Your task to perform on an android device: find which apps use the phone's location Image 0: 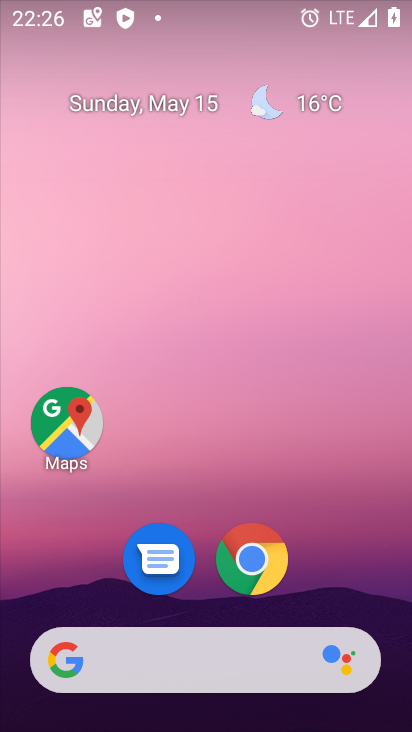
Step 0: drag from (319, 503) to (257, 13)
Your task to perform on an android device: find which apps use the phone's location Image 1: 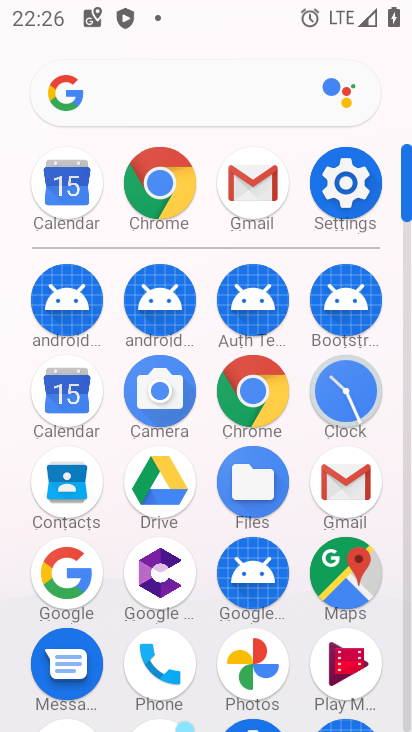
Step 1: click (347, 184)
Your task to perform on an android device: find which apps use the phone's location Image 2: 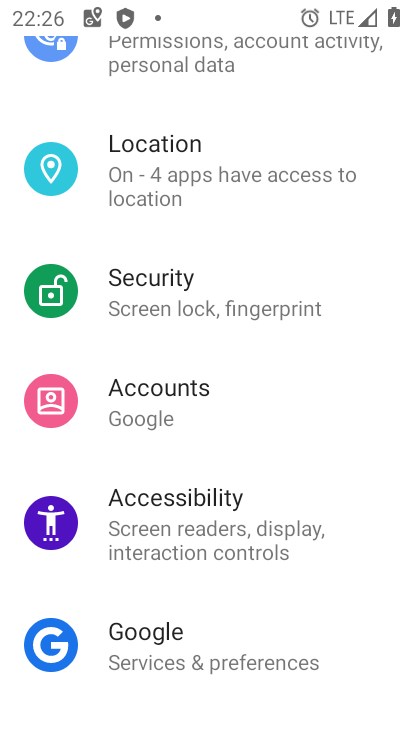
Step 2: click (147, 145)
Your task to perform on an android device: find which apps use the phone's location Image 3: 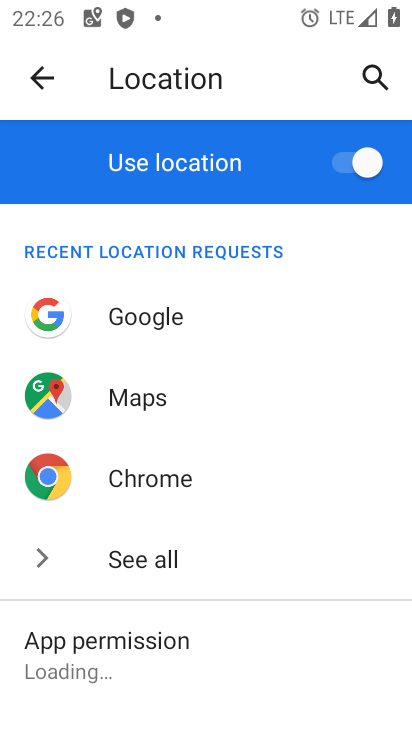
Step 3: drag from (198, 500) to (136, 178)
Your task to perform on an android device: find which apps use the phone's location Image 4: 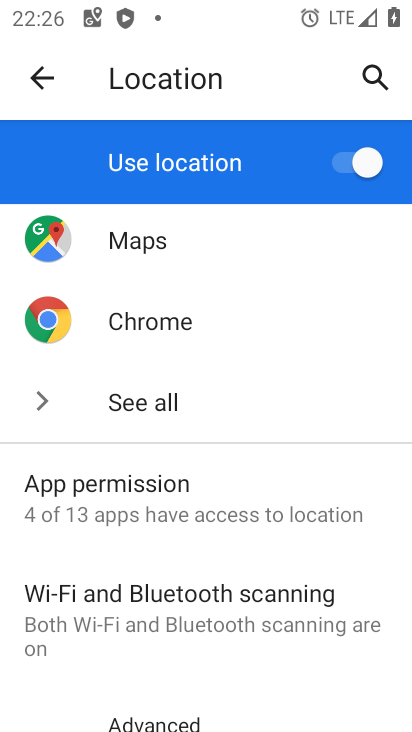
Step 4: drag from (246, 422) to (183, 173)
Your task to perform on an android device: find which apps use the phone's location Image 5: 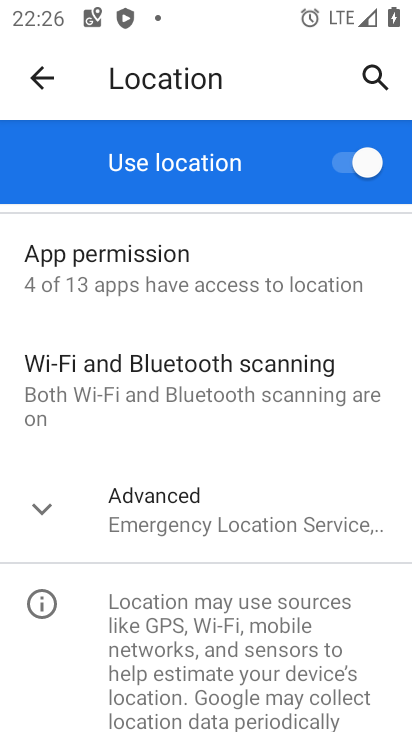
Step 5: drag from (229, 240) to (299, 729)
Your task to perform on an android device: find which apps use the phone's location Image 6: 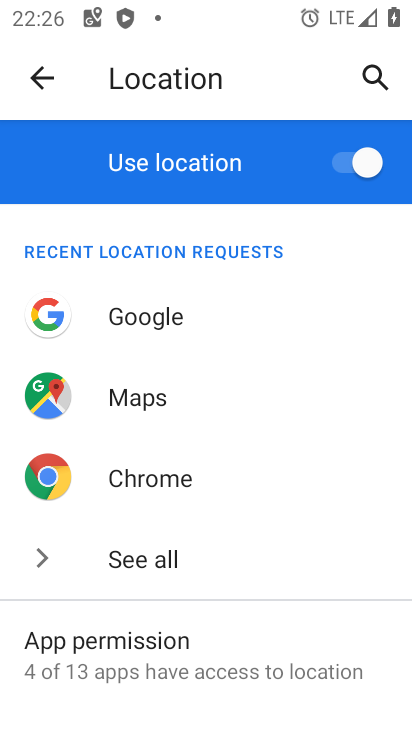
Step 6: drag from (235, 367) to (267, 731)
Your task to perform on an android device: find which apps use the phone's location Image 7: 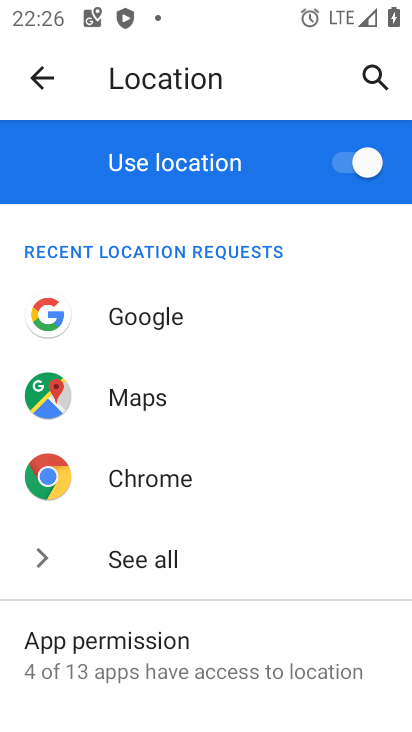
Step 7: click (127, 569)
Your task to perform on an android device: find which apps use the phone's location Image 8: 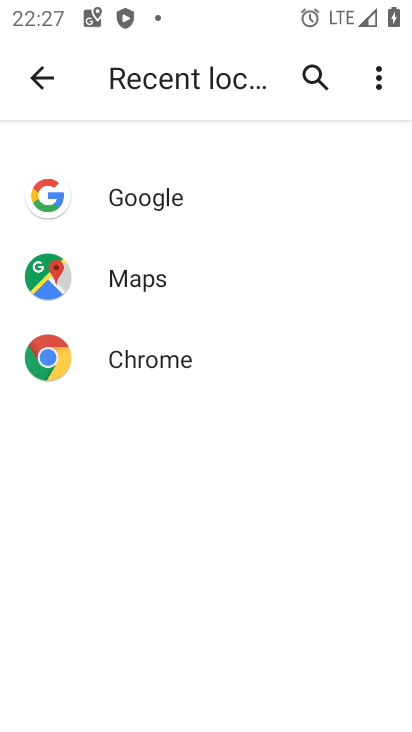
Step 8: task complete